Your task to perform on an android device: open wifi settings Image 0: 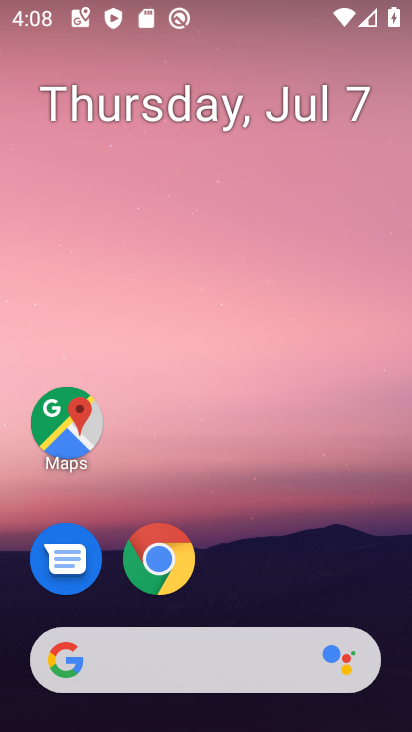
Step 0: drag from (110, 13) to (218, 645)
Your task to perform on an android device: open wifi settings Image 1: 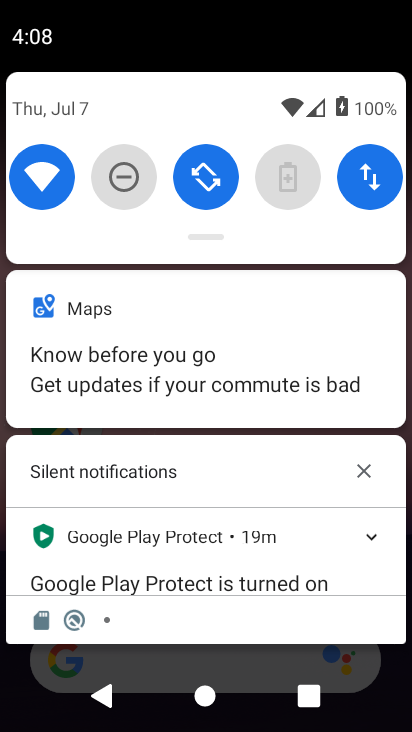
Step 1: click (48, 181)
Your task to perform on an android device: open wifi settings Image 2: 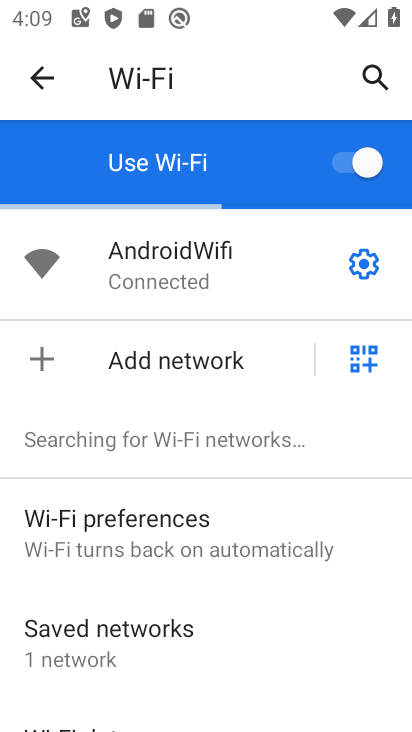
Step 2: task complete